Your task to perform on an android device: change the clock display to show seconds Image 0: 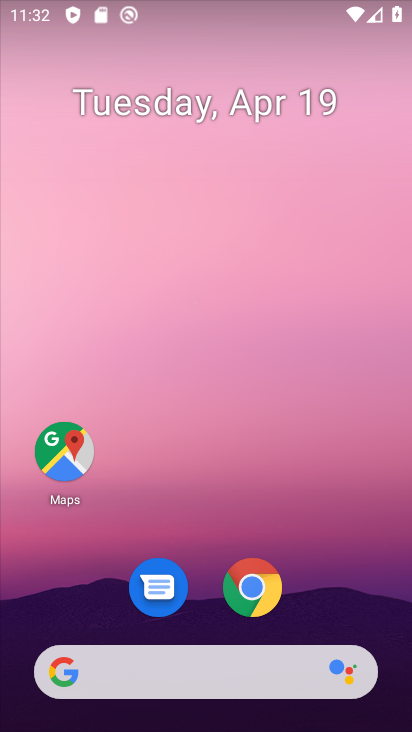
Step 0: click (217, 188)
Your task to perform on an android device: change the clock display to show seconds Image 1: 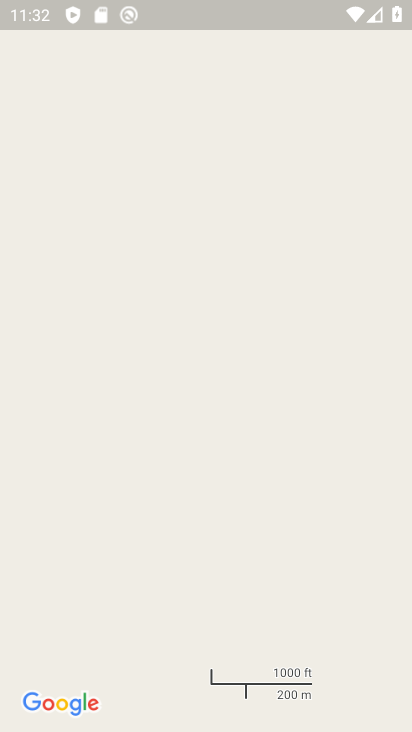
Step 1: press home button
Your task to perform on an android device: change the clock display to show seconds Image 2: 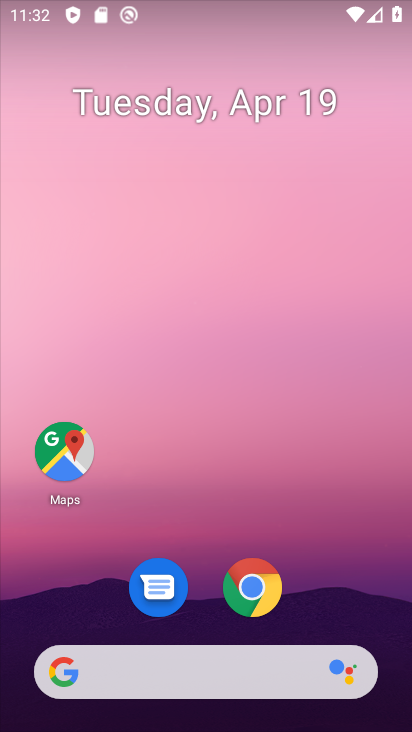
Step 2: drag from (214, 437) to (233, 115)
Your task to perform on an android device: change the clock display to show seconds Image 3: 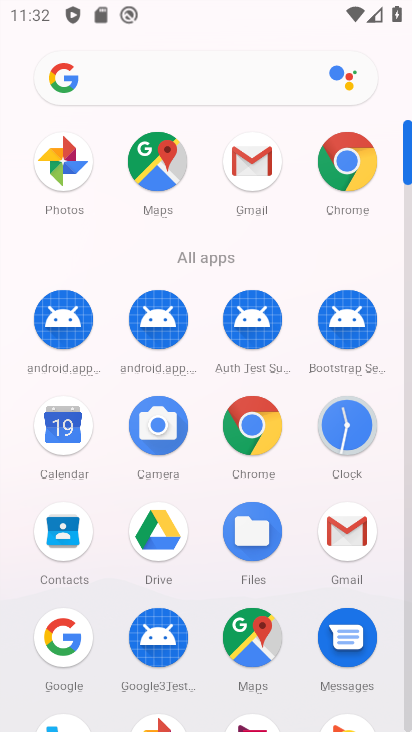
Step 3: click (354, 436)
Your task to perform on an android device: change the clock display to show seconds Image 4: 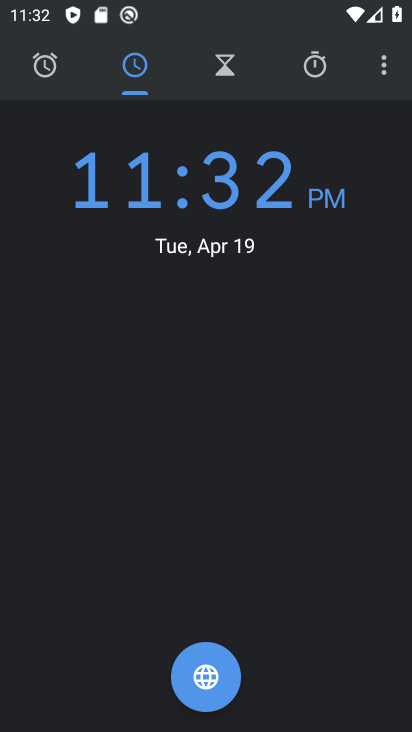
Step 4: click (380, 59)
Your task to perform on an android device: change the clock display to show seconds Image 5: 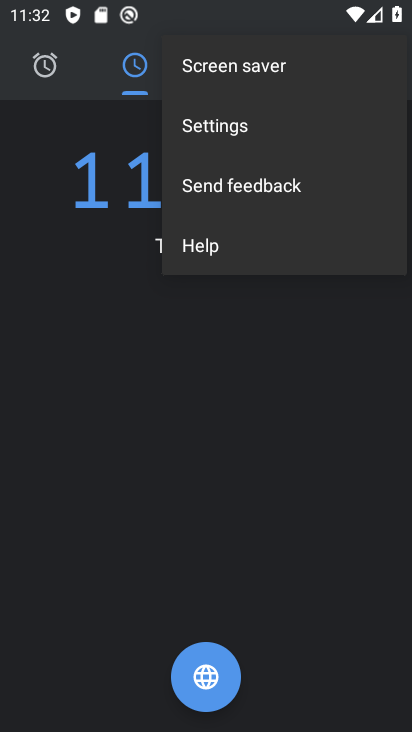
Step 5: click (217, 144)
Your task to perform on an android device: change the clock display to show seconds Image 6: 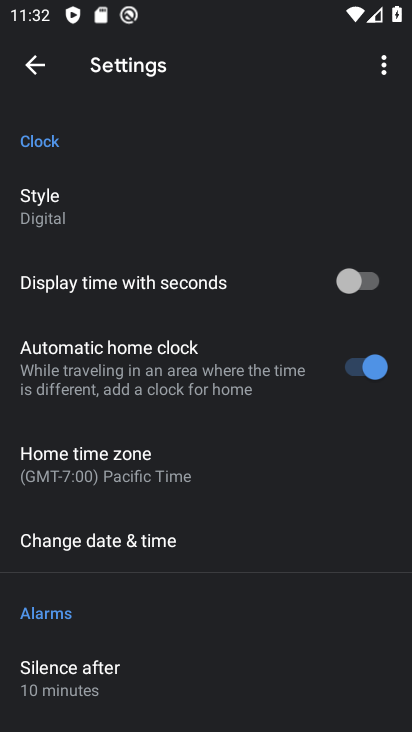
Step 6: click (355, 286)
Your task to perform on an android device: change the clock display to show seconds Image 7: 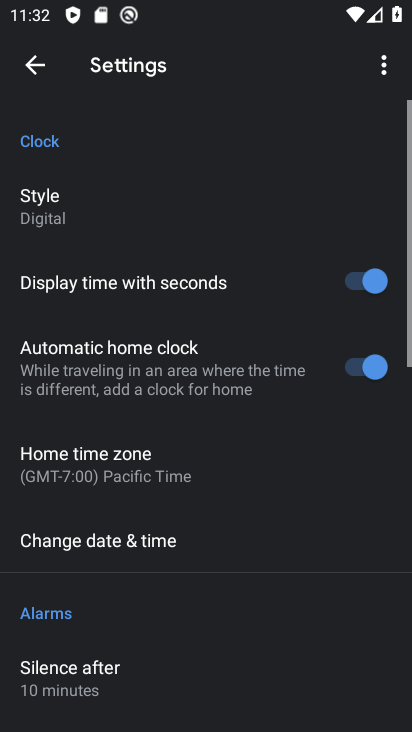
Step 7: task complete